Your task to perform on an android device: Is it going to rain today? Image 0: 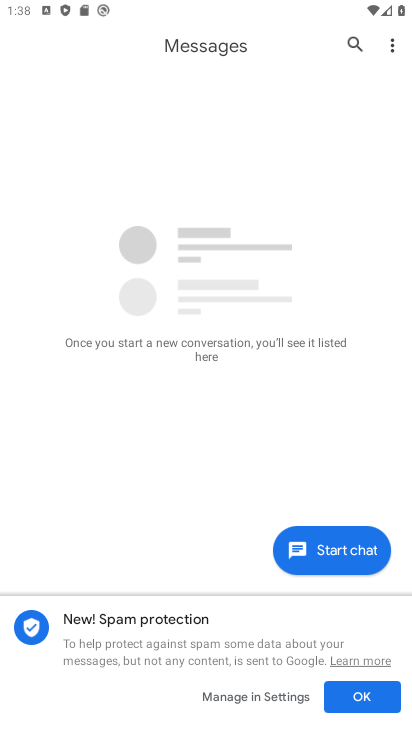
Step 0: press home button
Your task to perform on an android device: Is it going to rain today? Image 1: 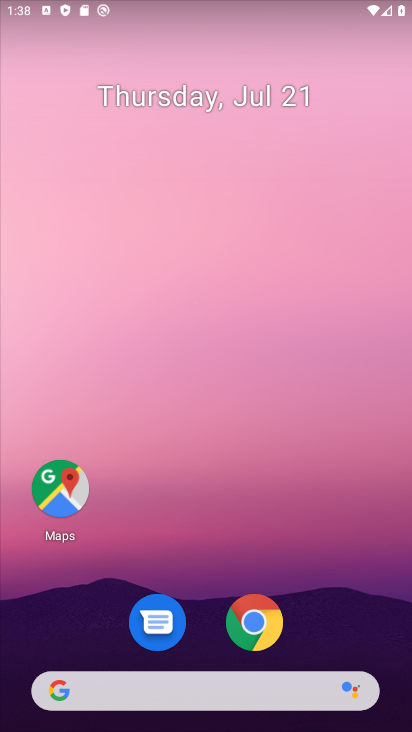
Step 1: click (260, 625)
Your task to perform on an android device: Is it going to rain today? Image 2: 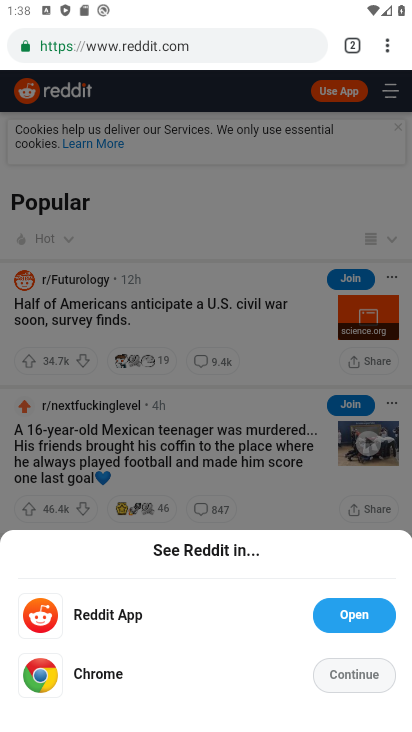
Step 2: click (388, 53)
Your task to perform on an android device: Is it going to rain today? Image 3: 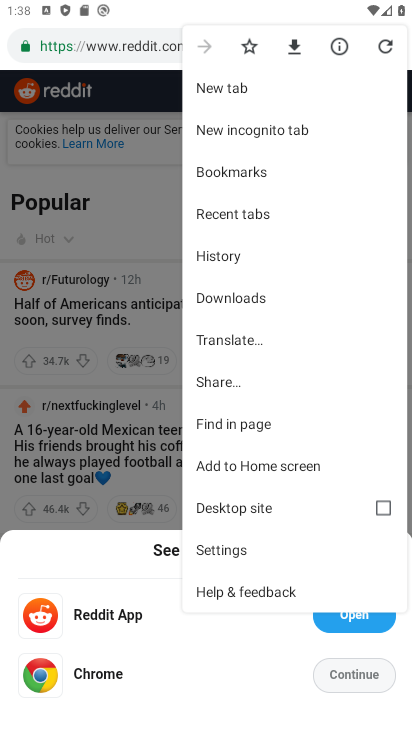
Step 3: click (222, 92)
Your task to perform on an android device: Is it going to rain today? Image 4: 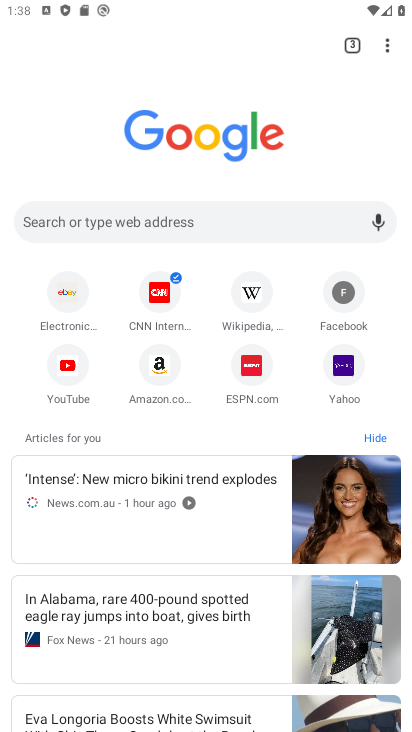
Step 4: click (117, 224)
Your task to perform on an android device: Is it going to rain today? Image 5: 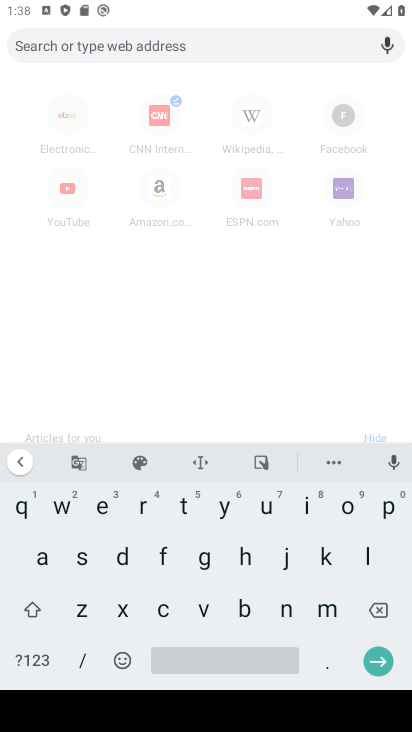
Step 5: click (311, 507)
Your task to perform on an android device: Is it going to rain today? Image 6: 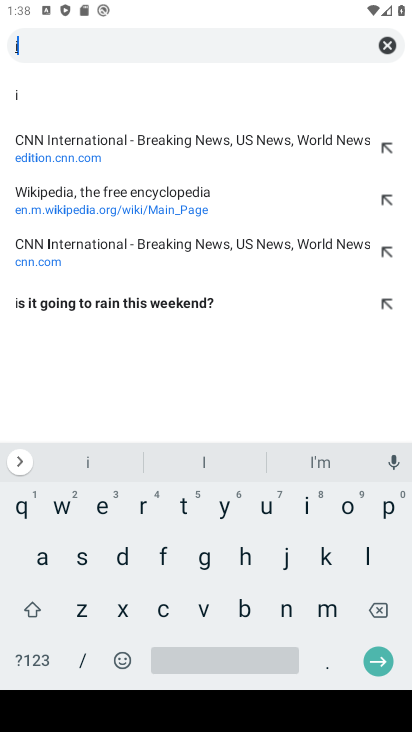
Step 6: click (182, 506)
Your task to perform on an android device: Is it going to rain today? Image 7: 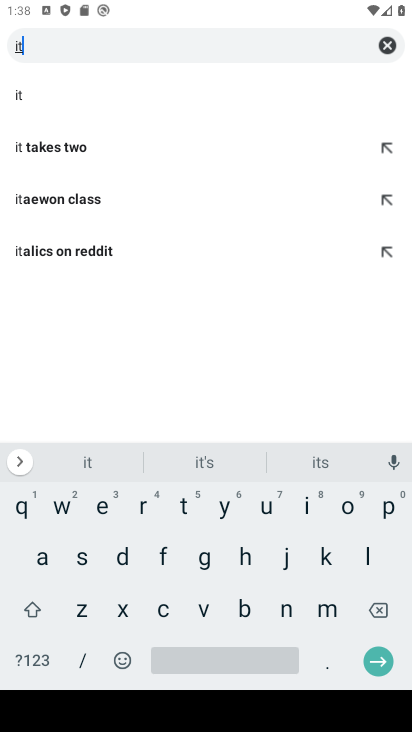
Step 7: click (369, 608)
Your task to perform on an android device: Is it going to rain today? Image 8: 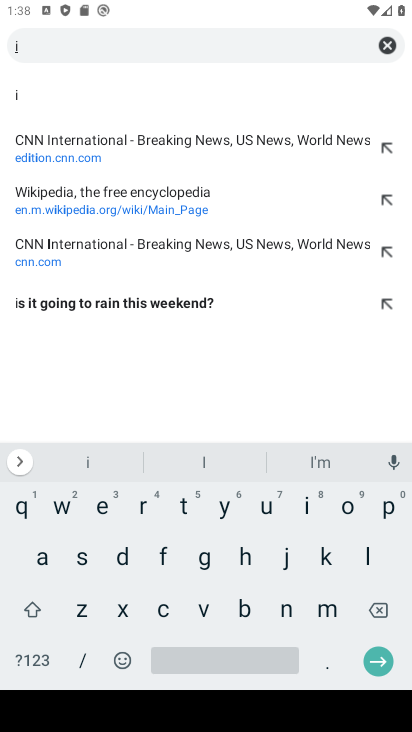
Step 8: click (78, 554)
Your task to perform on an android device: Is it going to rain today? Image 9: 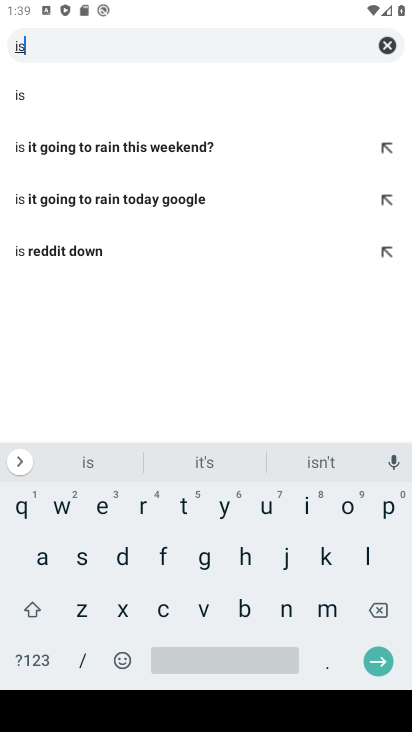
Step 9: click (90, 460)
Your task to perform on an android device: Is it going to rain today? Image 10: 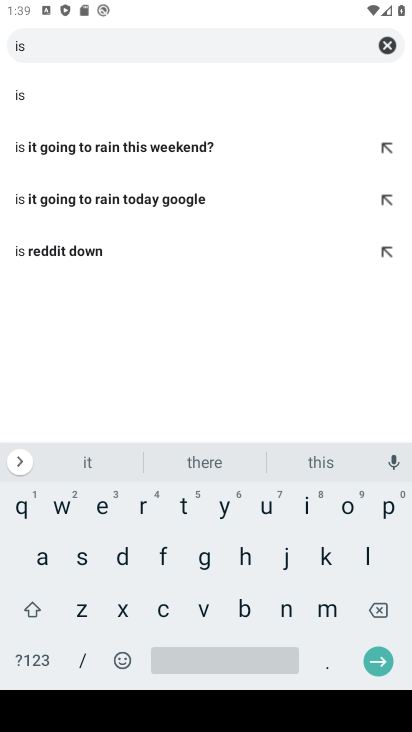
Step 10: click (312, 508)
Your task to perform on an android device: Is it going to rain today? Image 11: 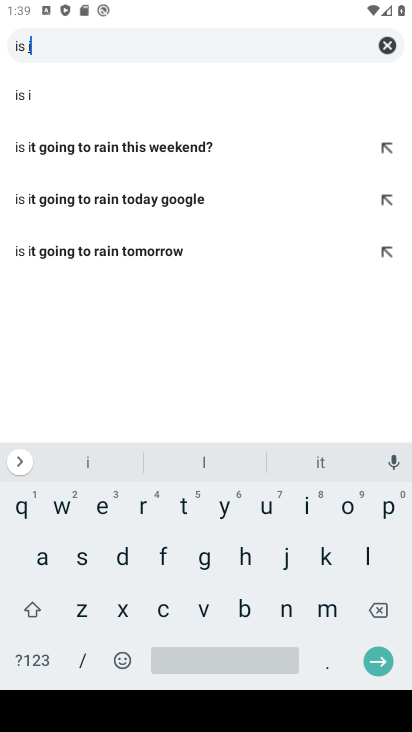
Step 11: click (181, 511)
Your task to perform on an android device: Is it going to rain today? Image 12: 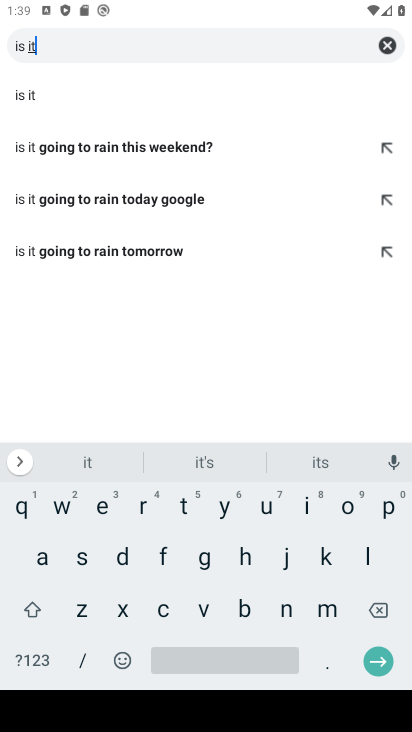
Step 12: click (190, 659)
Your task to perform on an android device: Is it going to rain today? Image 13: 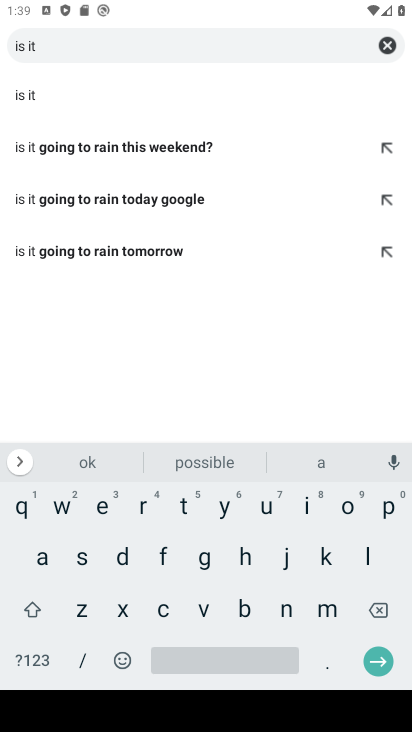
Step 13: click (202, 558)
Your task to perform on an android device: Is it going to rain today? Image 14: 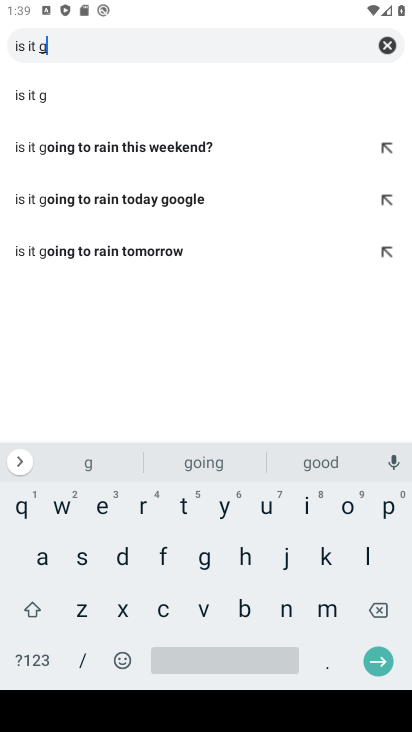
Step 14: click (219, 465)
Your task to perform on an android device: Is it going to rain today? Image 15: 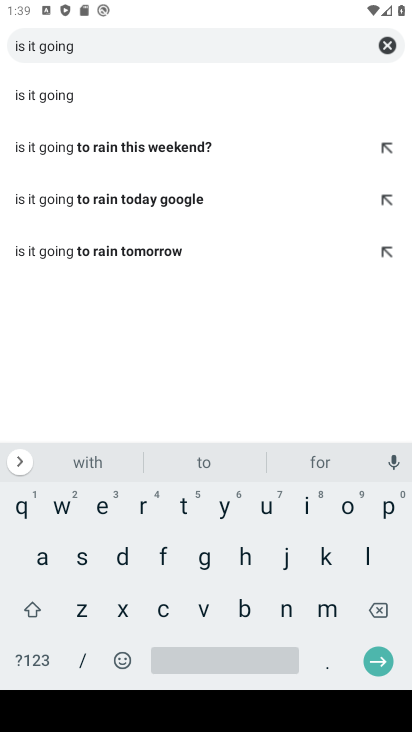
Step 15: click (219, 465)
Your task to perform on an android device: Is it going to rain today? Image 16: 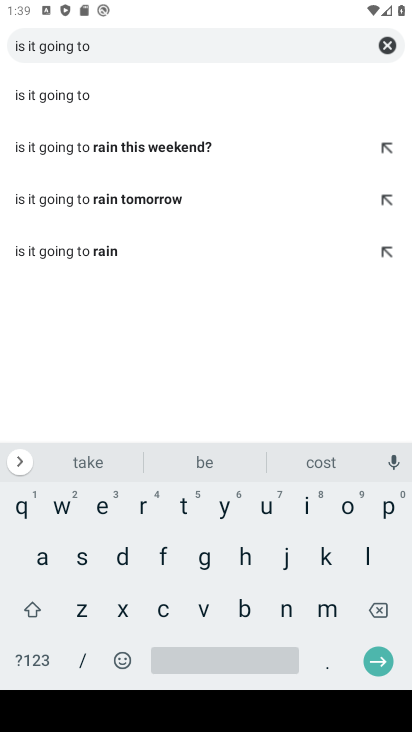
Step 16: click (137, 507)
Your task to perform on an android device: Is it going to rain today? Image 17: 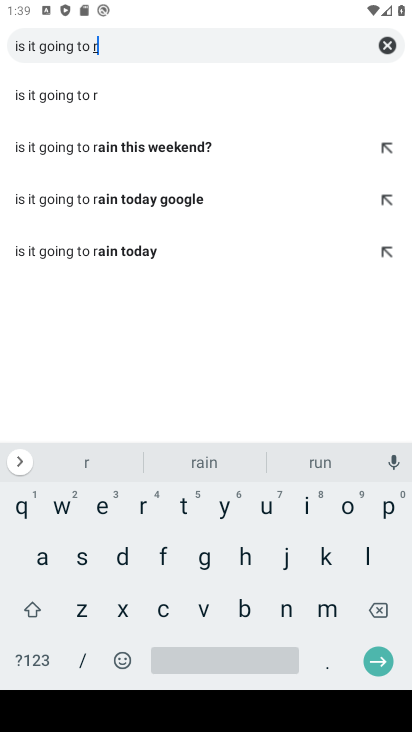
Step 17: click (87, 253)
Your task to perform on an android device: Is it going to rain today? Image 18: 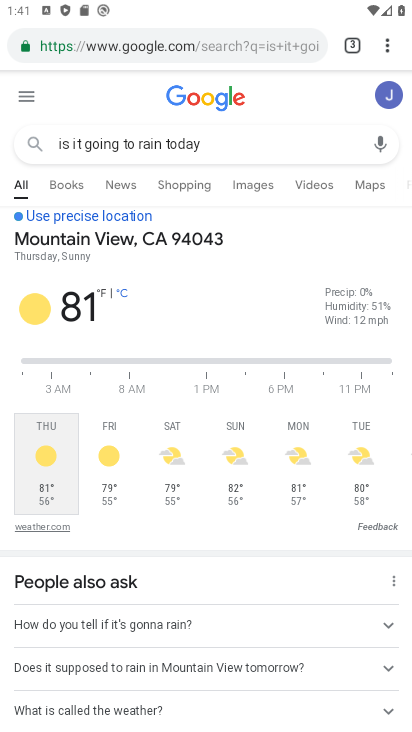
Step 18: task complete